Your task to perform on an android device: open a bookmark in the chrome app Image 0: 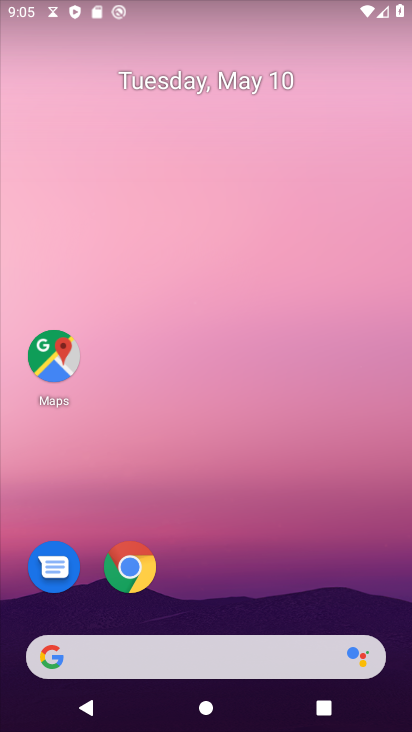
Step 0: click (126, 573)
Your task to perform on an android device: open a bookmark in the chrome app Image 1: 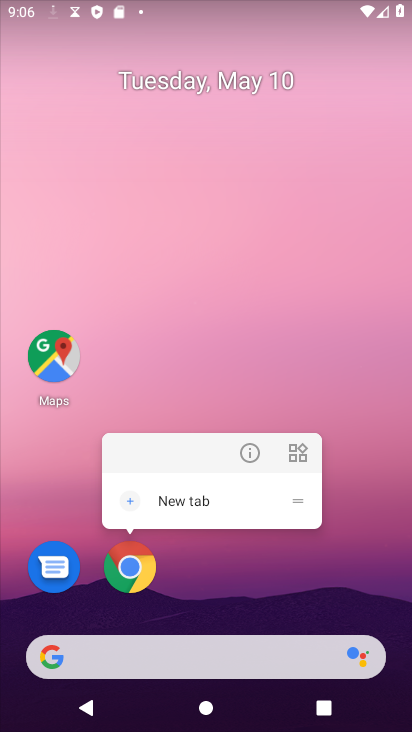
Step 1: click (253, 453)
Your task to perform on an android device: open a bookmark in the chrome app Image 2: 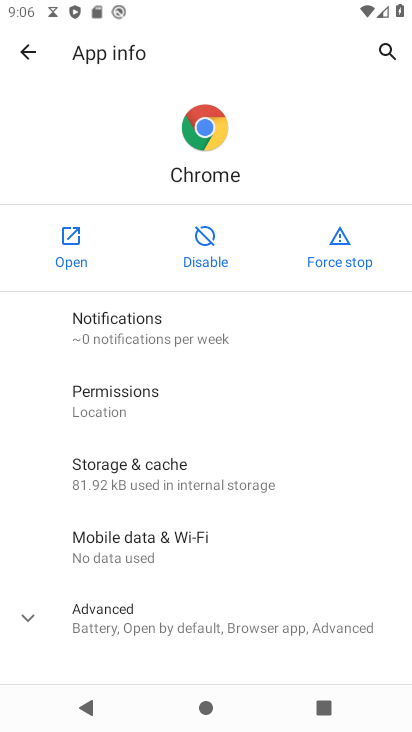
Step 2: click (80, 249)
Your task to perform on an android device: open a bookmark in the chrome app Image 3: 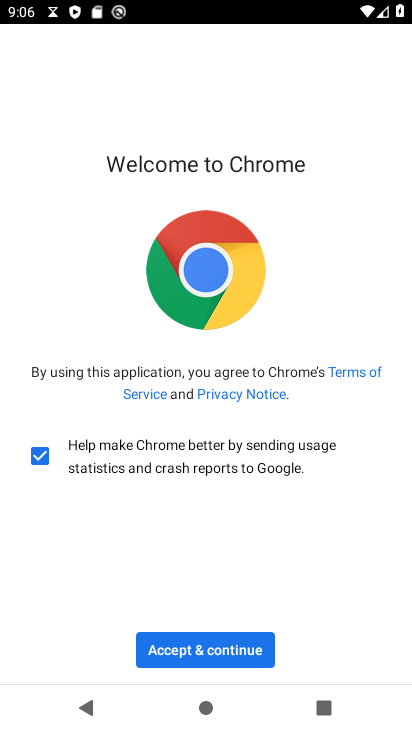
Step 3: click (217, 650)
Your task to perform on an android device: open a bookmark in the chrome app Image 4: 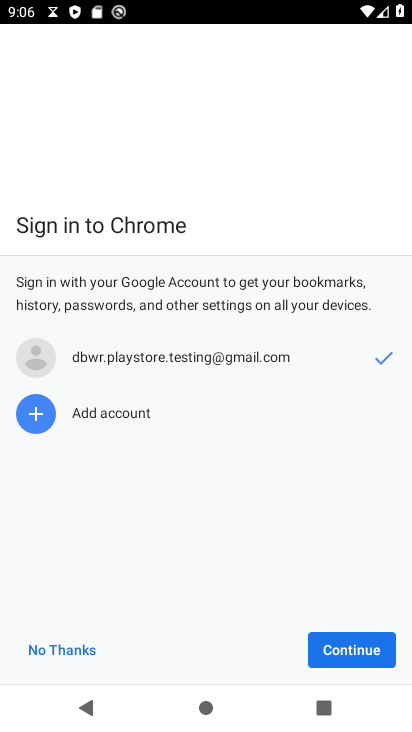
Step 4: click (32, 641)
Your task to perform on an android device: open a bookmark in the chrome app Image 5: 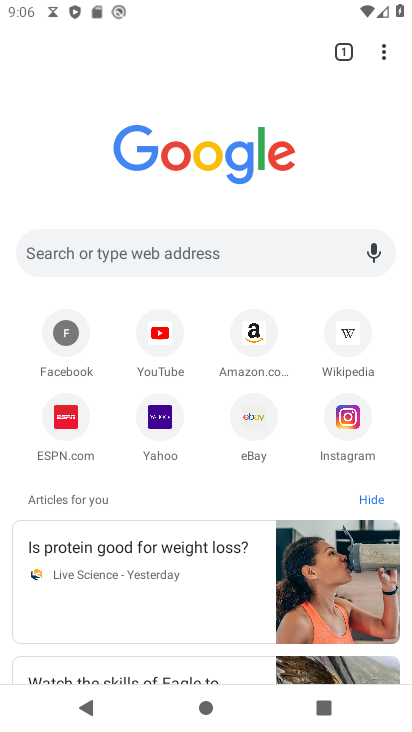
Step 5: click (375, 59)
Your task to perform on an android device: open a bookmark in the chrome app Image 6: 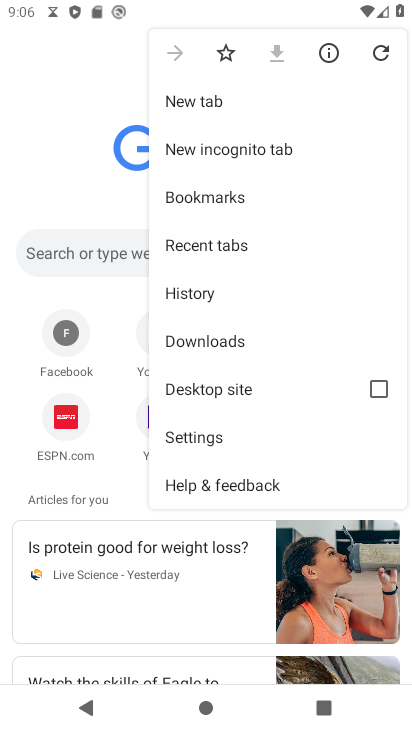
Step 6: click (247, 206)
Your task to perform on an android device: open a bookmark in the chrome app Image 7: 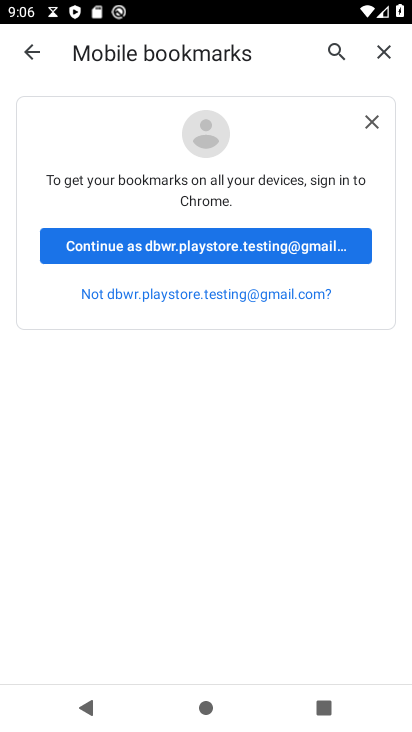
Step 7: click (377, 118)
Your task to perform on an android device: open a bookmark in the chrome app Image 8: 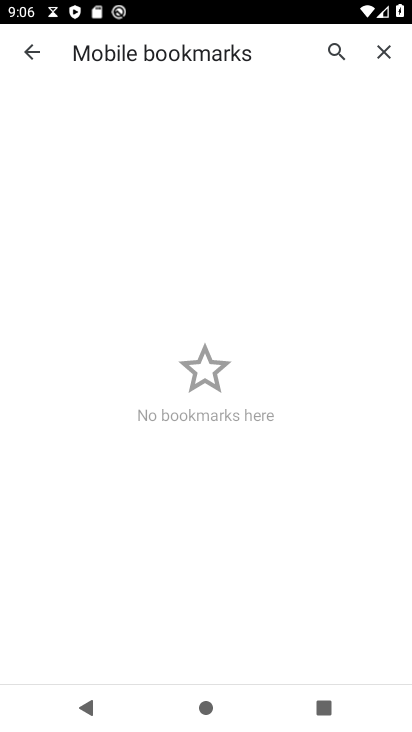
Step 8: task complete